Your task to perform on an android device: Open maps Image 0: 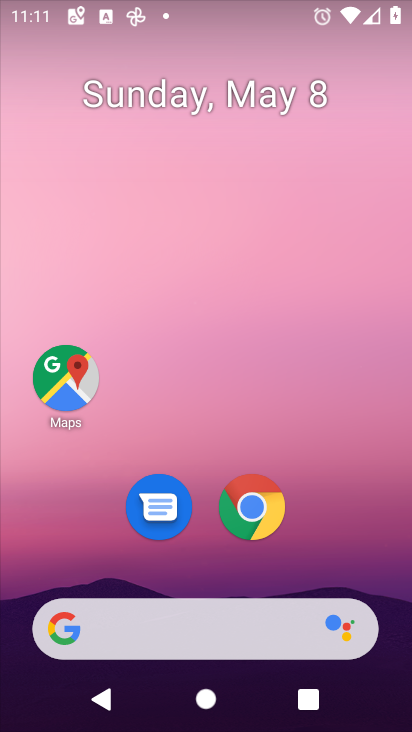
Step 0: click (56, 363)
Your task to perform on an android device: Open maps Image 1: 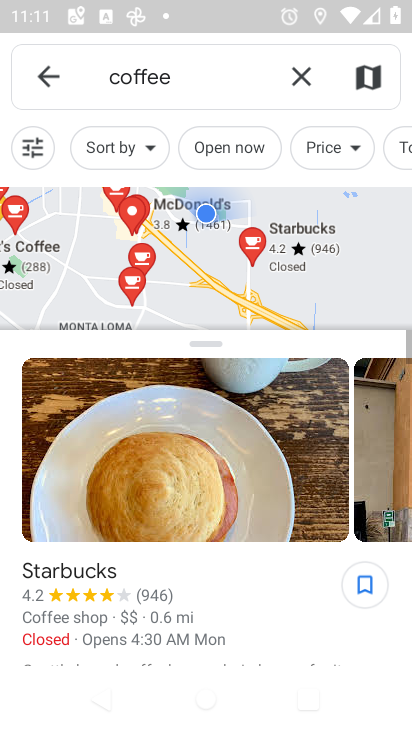
Step 1: task complete